Your task to perform on an android device: turn on priority inbox in the gmail app Image 0: 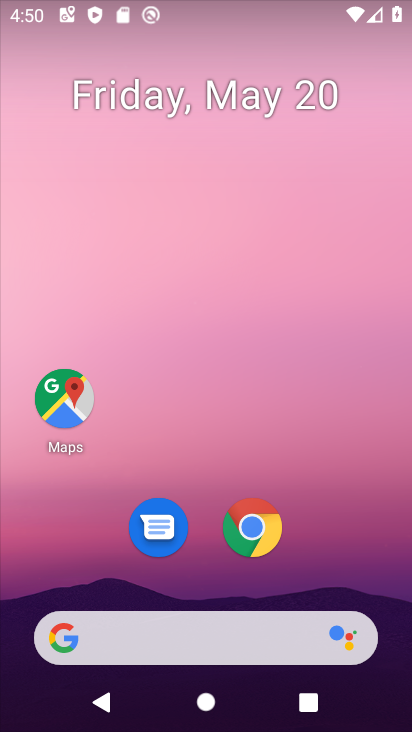
Step 0: click (195, 205)
Your task to perform on an android device: turn on priority inbox in the gmail app Image 1: 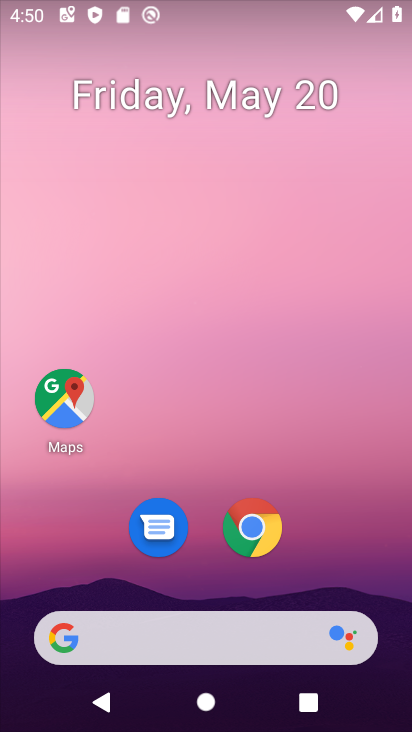
Step 1: drag from (210, 616) to (202, 146)
Your task to perform on an android device: turn on priority inbox in the gmail app Image 2: 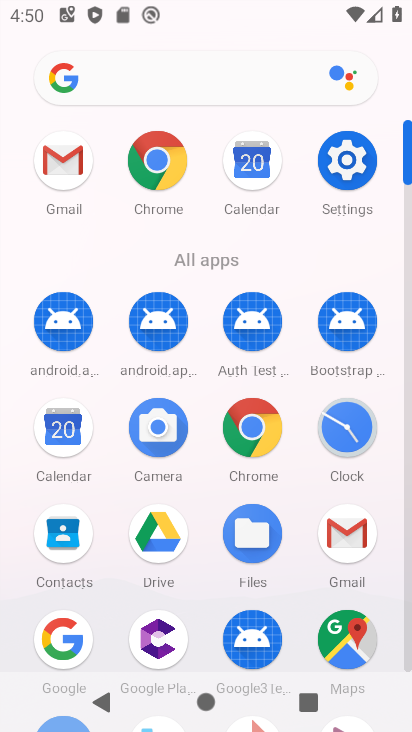
Step 2: click (336, 539)
Your task to perform on an android device: turn on priority inbox in the gmail app Image 3: 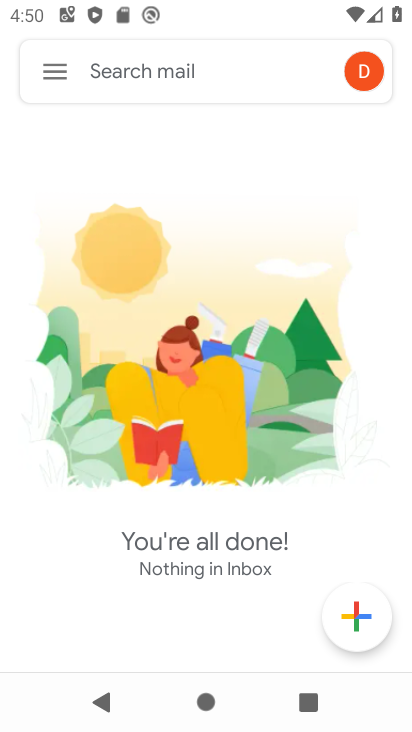
Step 3: click (63, 76)
Your task to perform on an android device: turn on priority inbox in the gmail app Image 4: 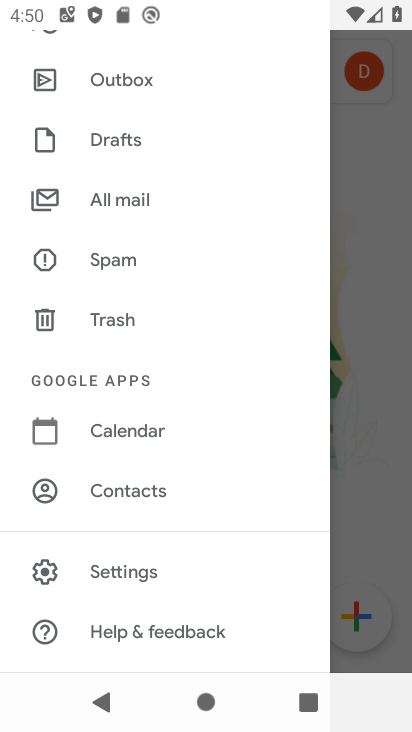
Step 4: click (142, 573)
Your task to perform on an android device: turn on priority inbox in the gmail app Image 5: 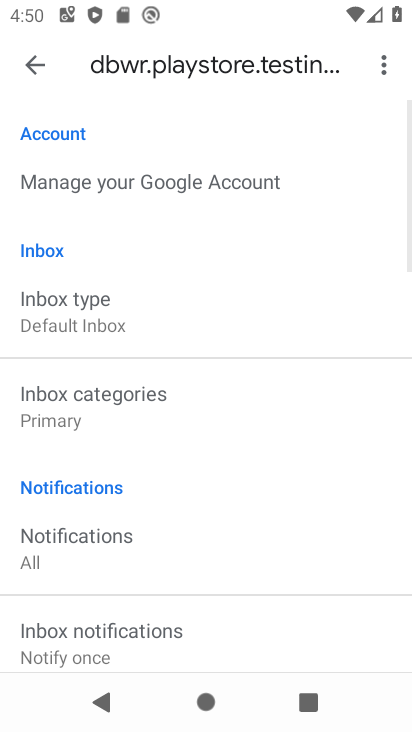
Step 5: click (98, 320)
Your task to perform on an android device: turn on priority inbox in the gmail app Image 6: 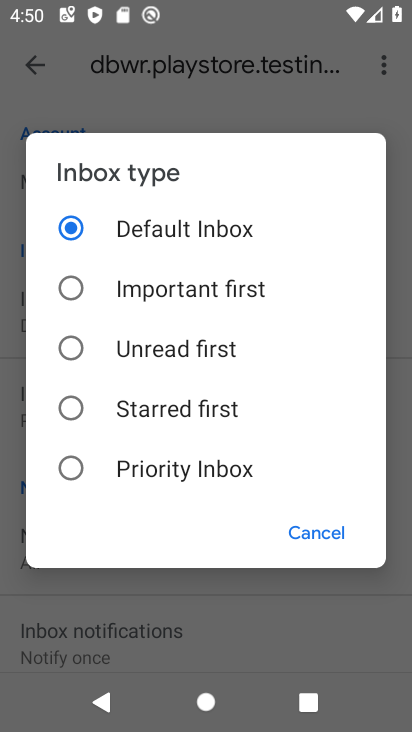
Step 6: click (130, 461)
Your task to perform on an android device: turn on priority inbox in the gmail app Image 7: 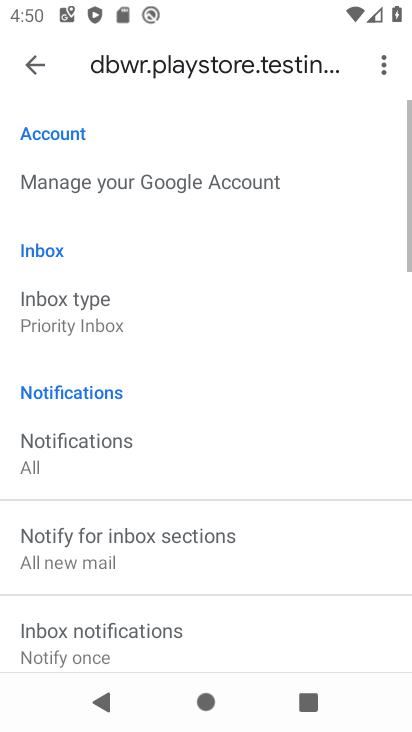
Step 7: task complete